Your task to perform on an android device: install app "Flipkart Online Shopping App" Image 0: 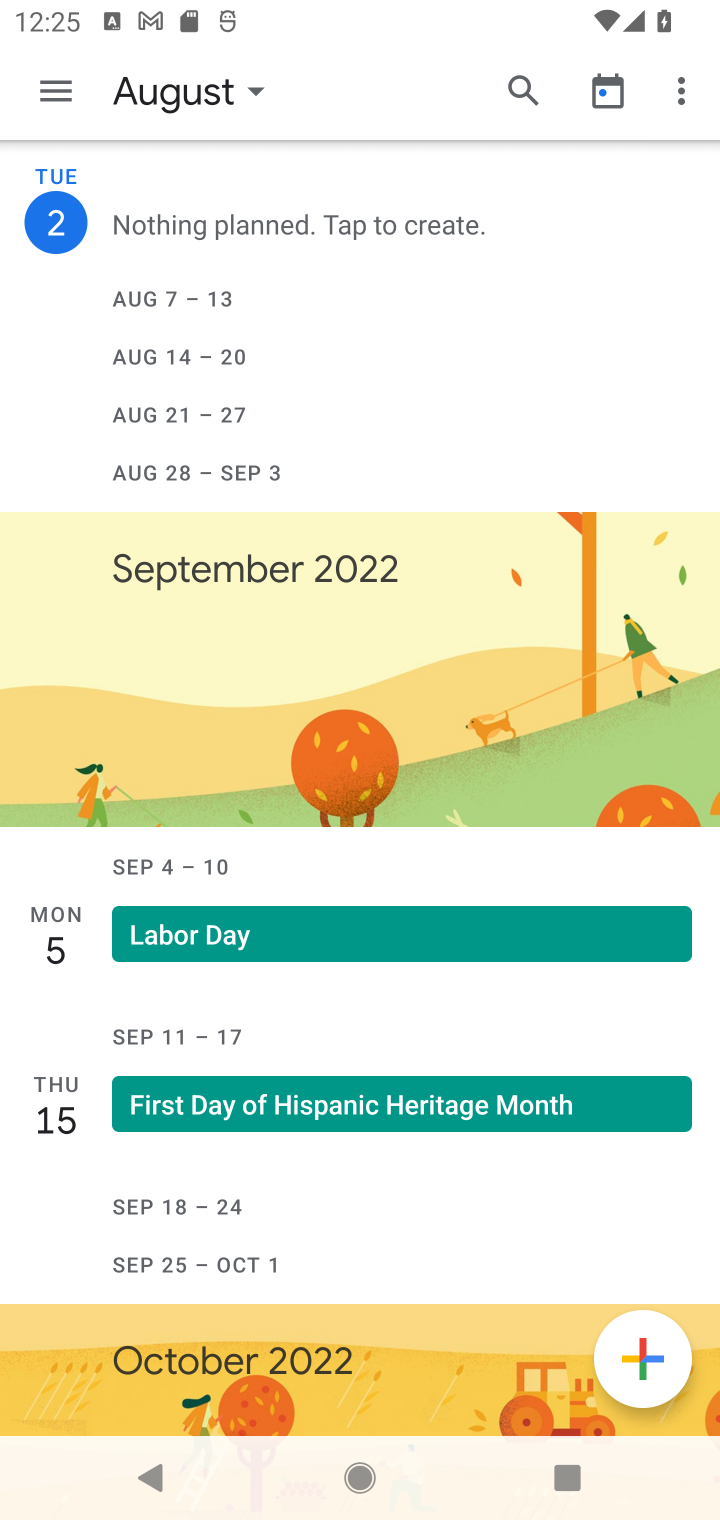
Step 0: press back button
Your task to perform on an android device: install app "Flipkart Online Shopping App" Image 1: 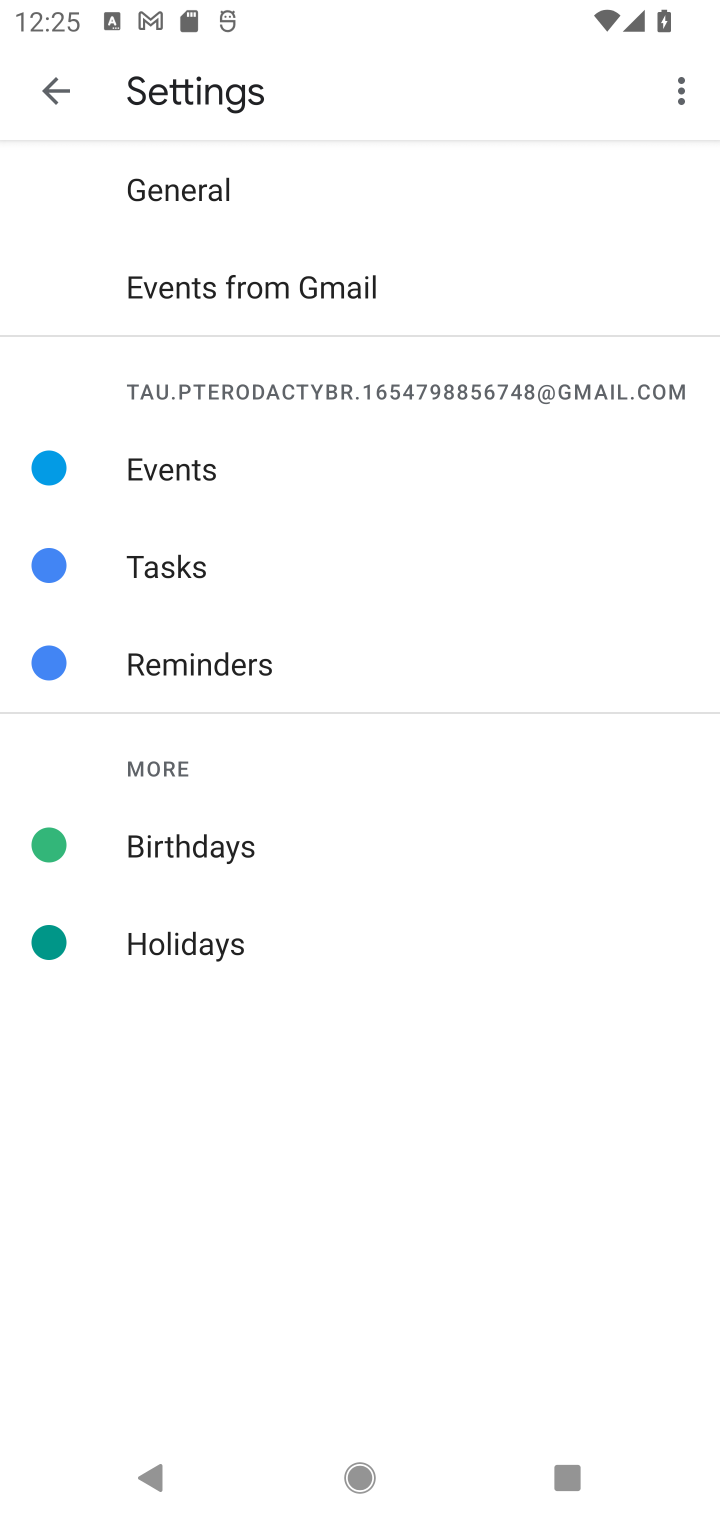
Step 1: press home button
Your task to perform on an android device: install app "Flipkart Online Shopping App" Image 2: 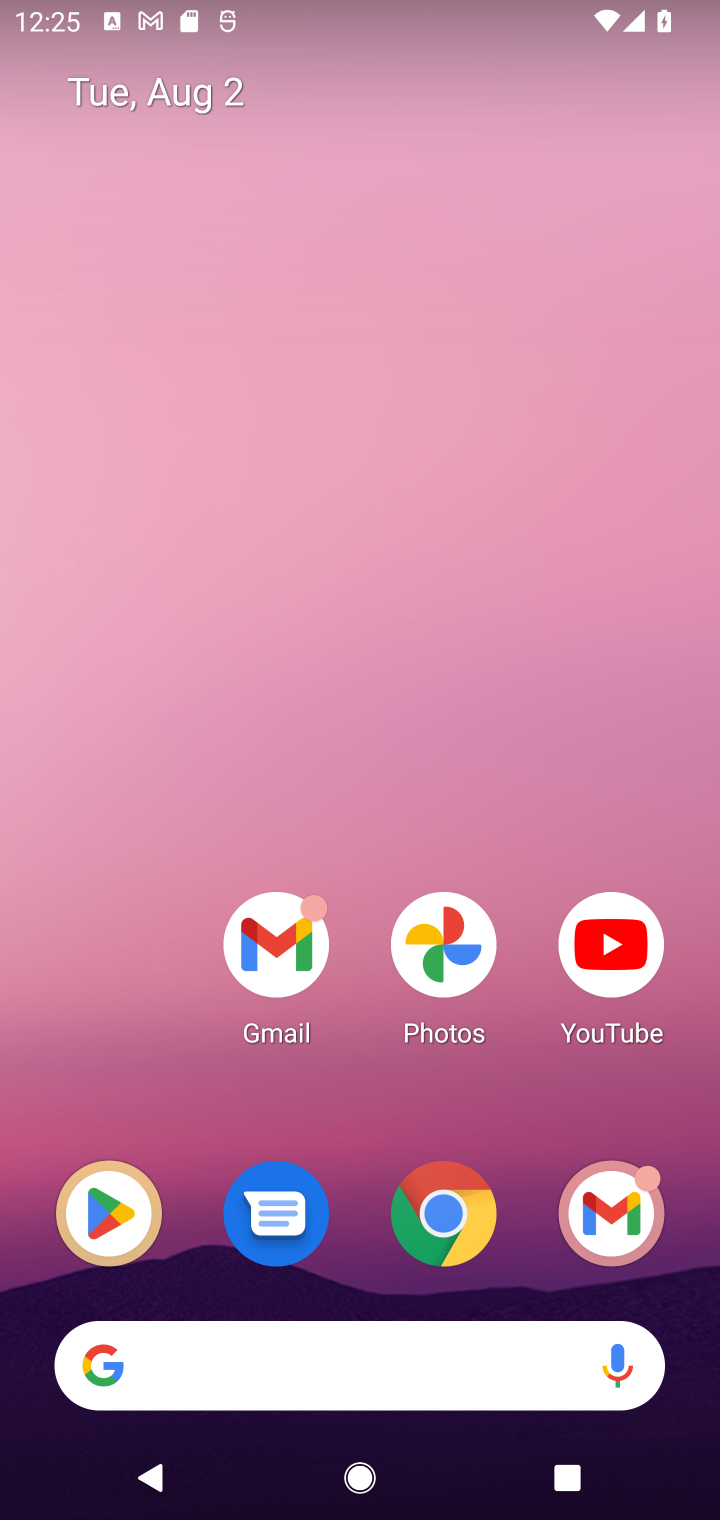
Step 2: click (124, 1211)
Your task to perform on an android device: install app "Flipkart Online Shopping App" Image 3: 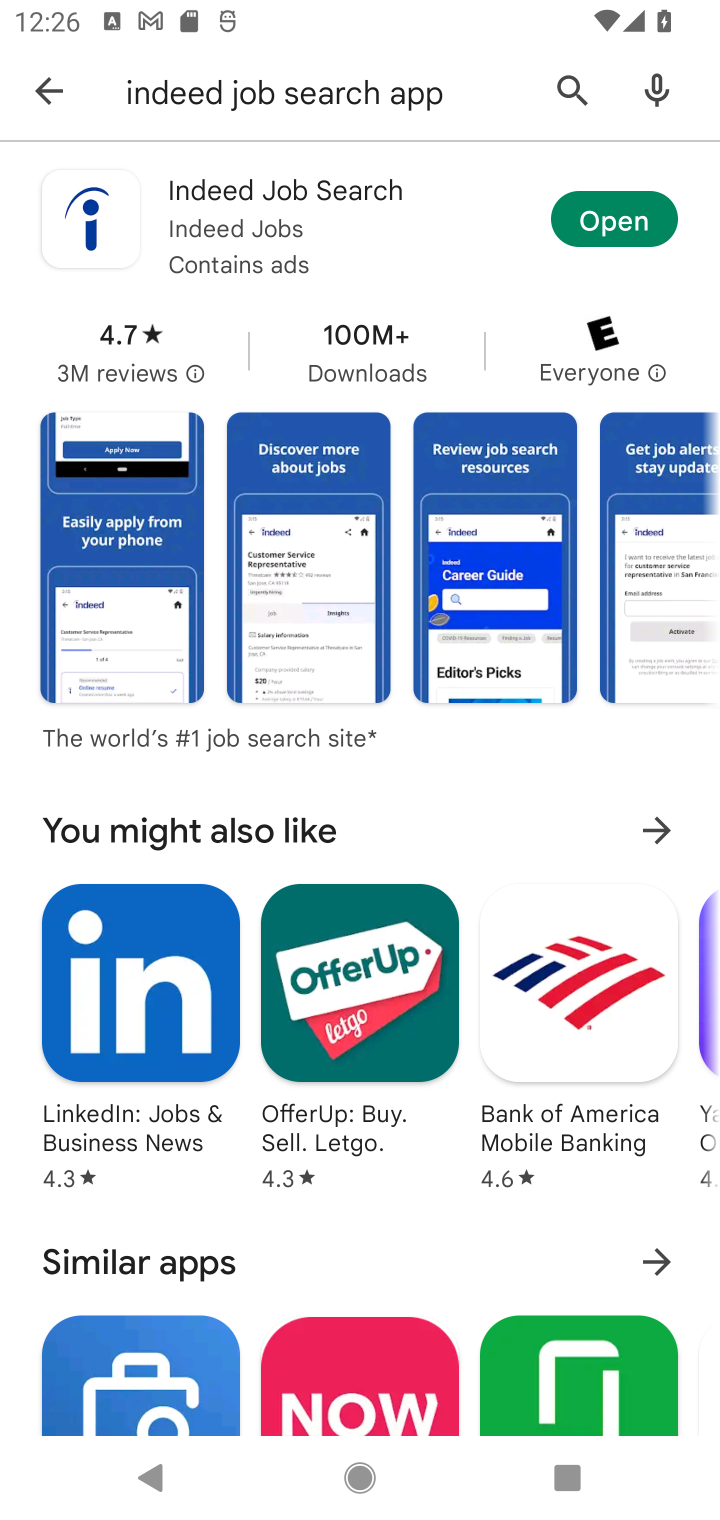
Step 3: click (54, 99)
Your task to perform on an android device: install app "Flipkart Online Shopping App" Image 4: 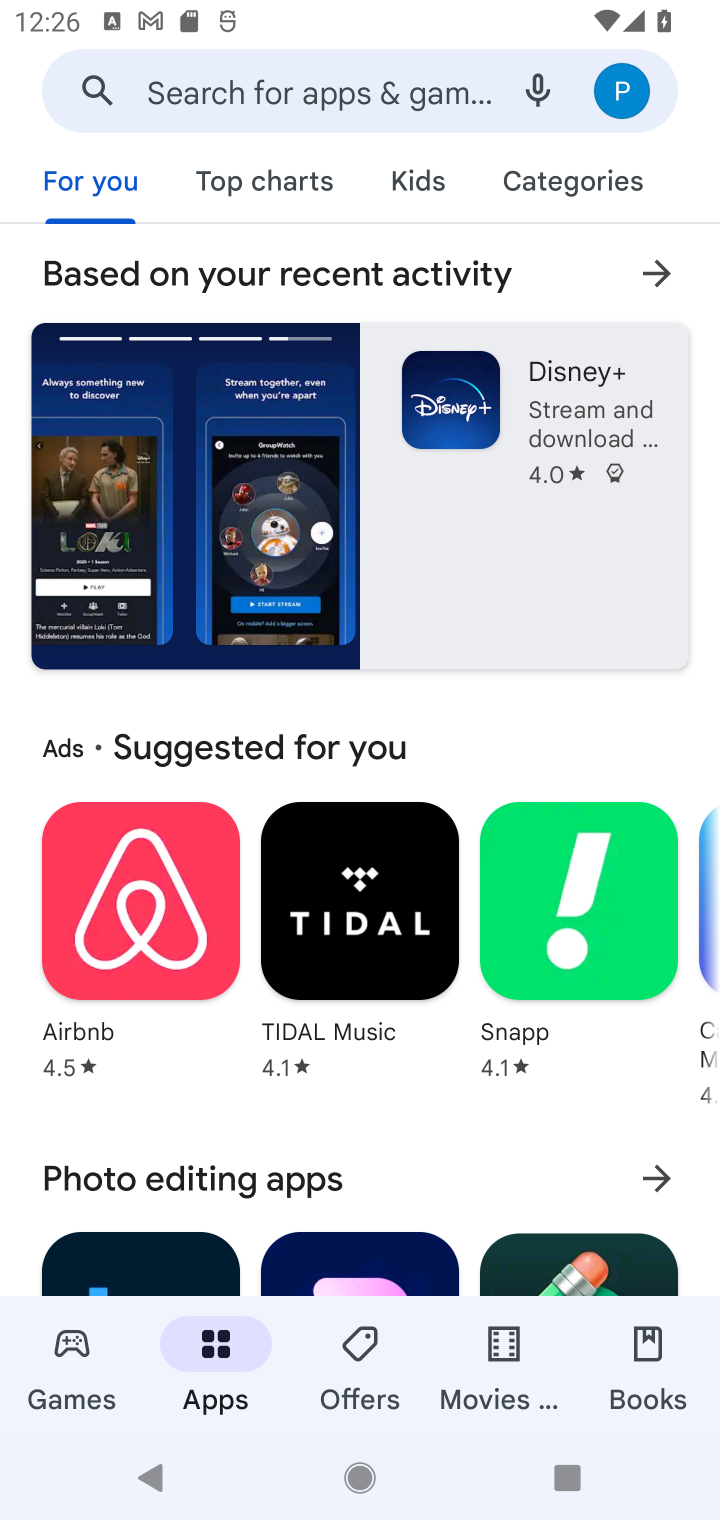
Step 4: click (266, 102)
Your task to perform on an android device: install app "Flipkart Online Shopping App" Image 5: 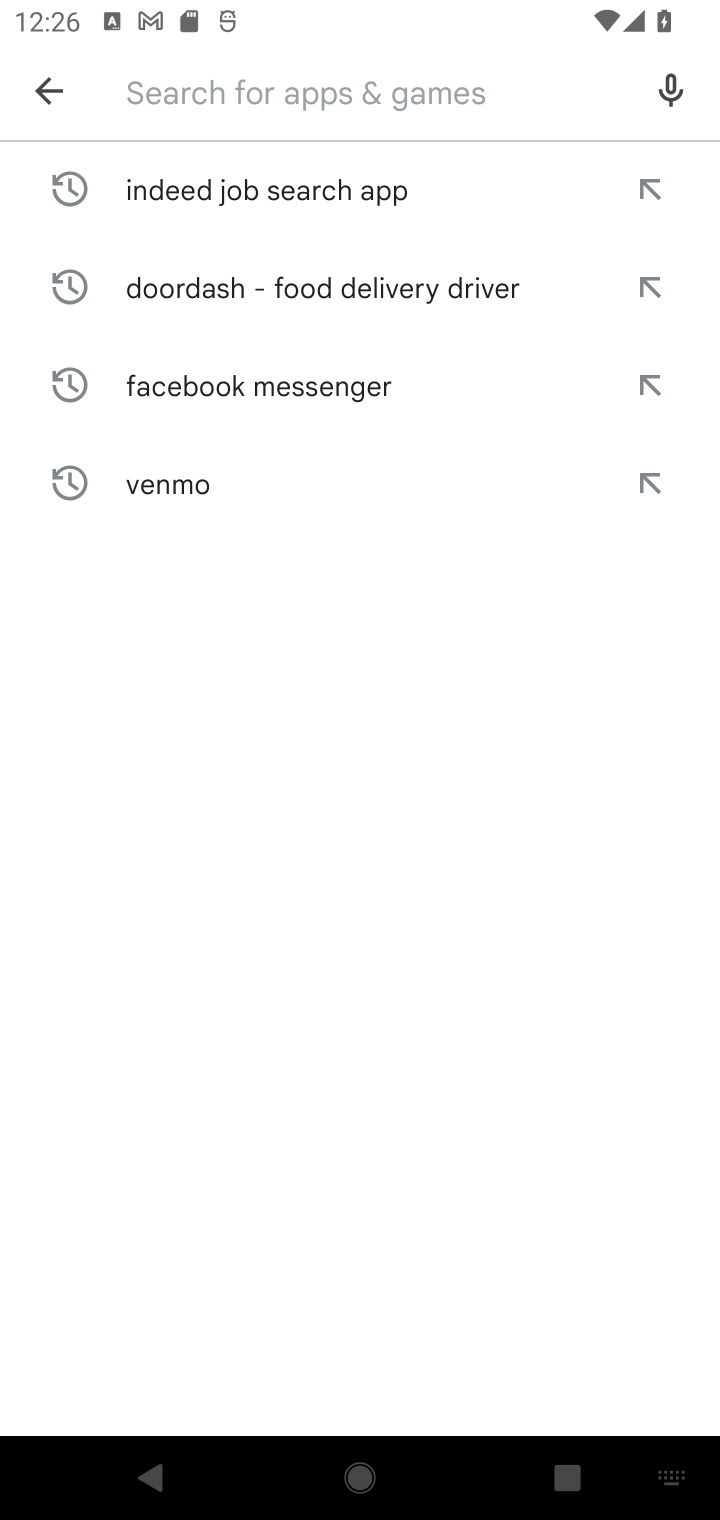
Step 5: type "Flipkart Online Shopping App"
Your task to perform on an android device: install app "Flipkart Online Shopping App" Image 6: 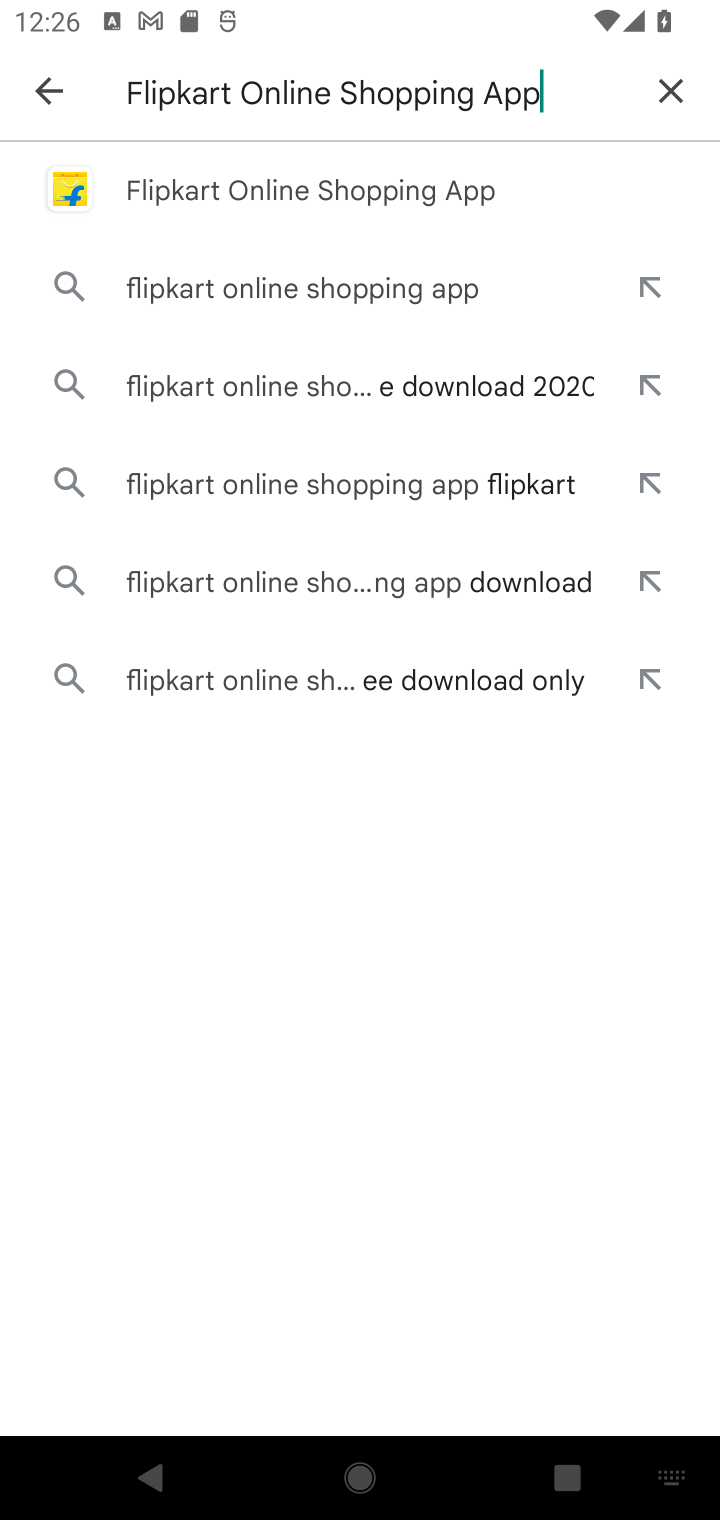
Step 6: click (251, 192)
Your task to perform on an android device: install app "Flipkart Online Shopping App" Image 7: 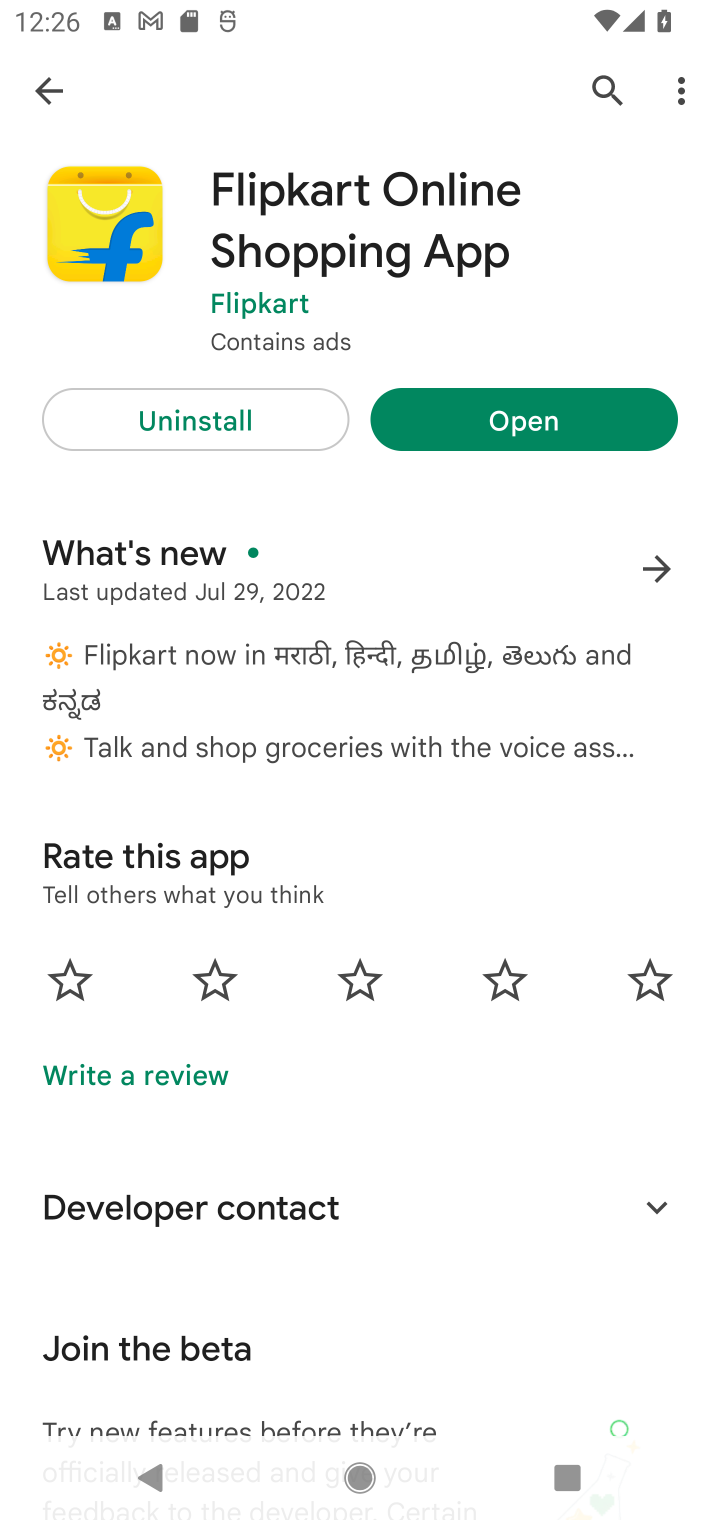
Step 7: click (441, 413)
Your task to perform on an android device: install app "Flipkart Online Shopping App" Image 8: 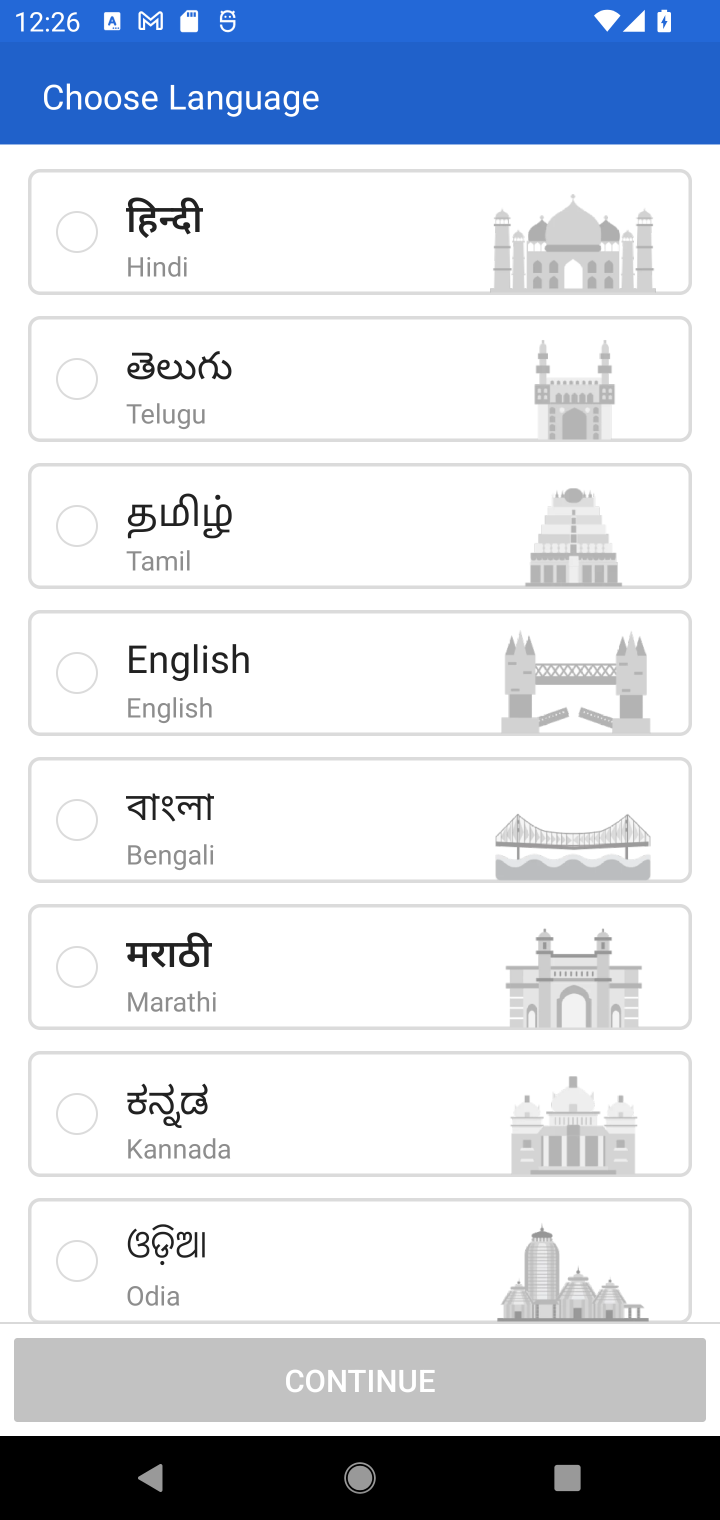
Step 8: task complete